Your task to perform on an android device: Open the phone app and click the voicemail tab. Image 0: 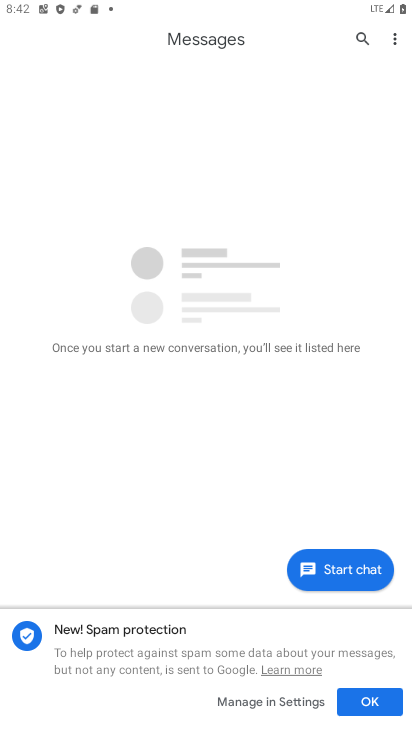
Step 0: press home button
Your task to perform on an android device: Open the phone app and click the voicemail tab. Image 1: 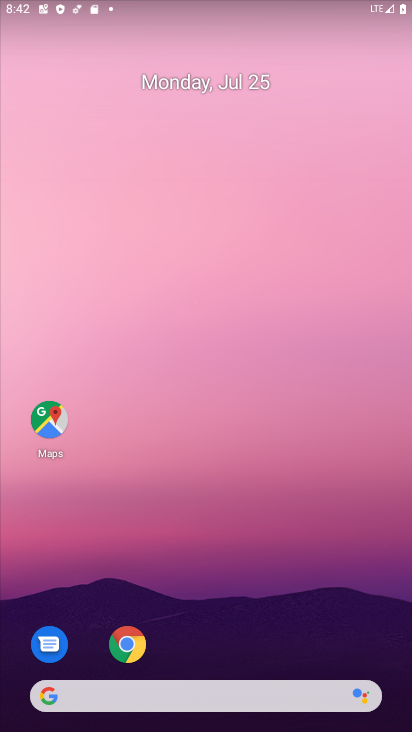
Step 1: drag from (230, 590) to (196, 194)
Your task to perform on an android device: Open the phone app and click the voicemail tab. Image 2: 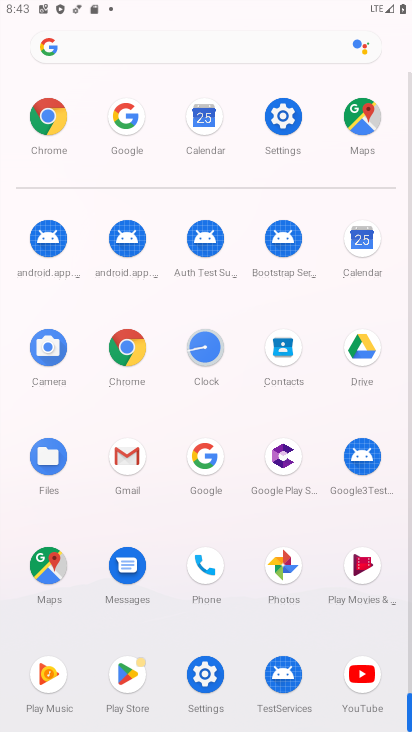
Step 2: click (213, 576)
Your task to perform on an android device: Open the phone app and click the voicemail tab. Image 3: 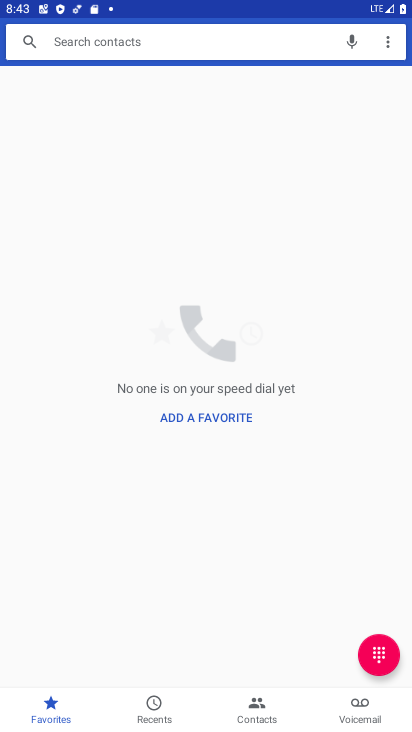
Step 3: click (365, 706)
Your task to perform on an android device: Open the phone app and click the voicemail tab. Image 4: 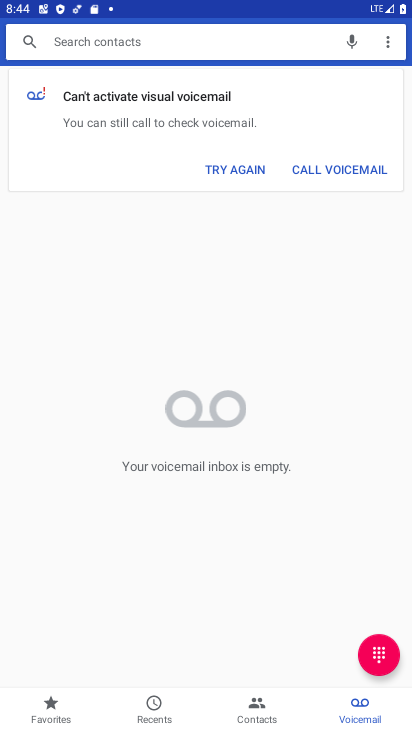
Step 4: task complete